Your task to perform on an android device: Open the stopwatch Image 0: 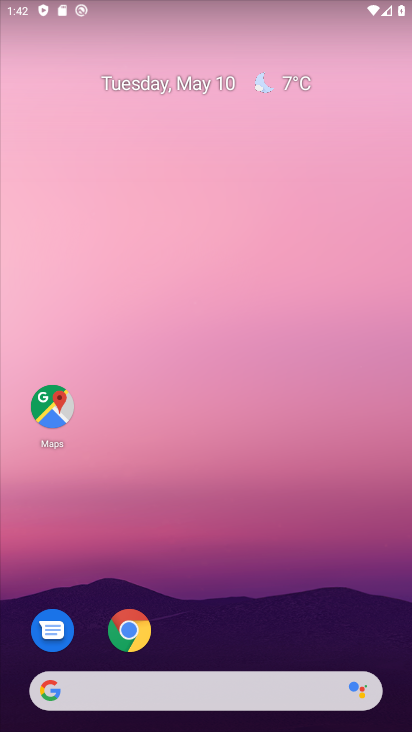
Step 0: drag from (224, 506) to (156, 2)
Your task to perform on an android device: Open the stopwatch Image 1: 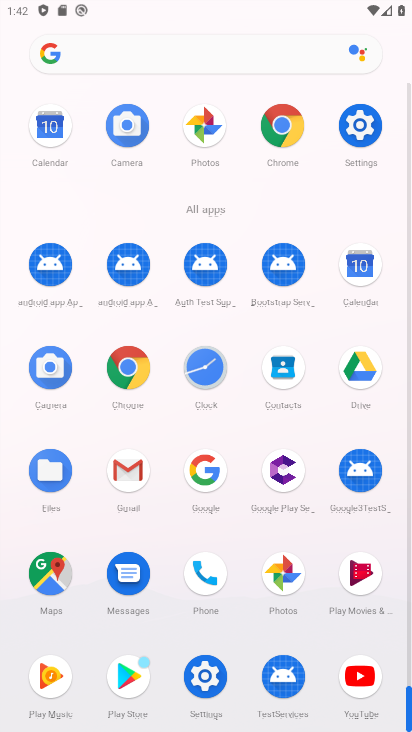
Step 1: drag from (7, 527) to (7, 241)
Your task to perform on an android device: Open the stopwatch Image 2: 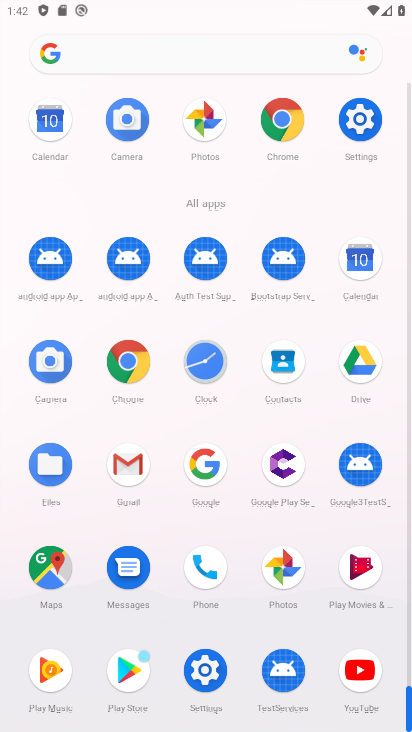
Step 2: click (209, 358)
Your task to perform on an android device: Open the stopwatch Image 3: 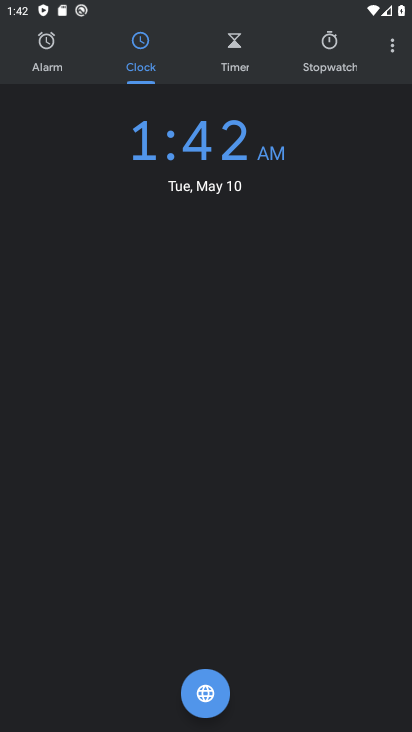
Step 3: click (313, 54)
Your task to perform on an android device: Open the stopwatch Image 4: 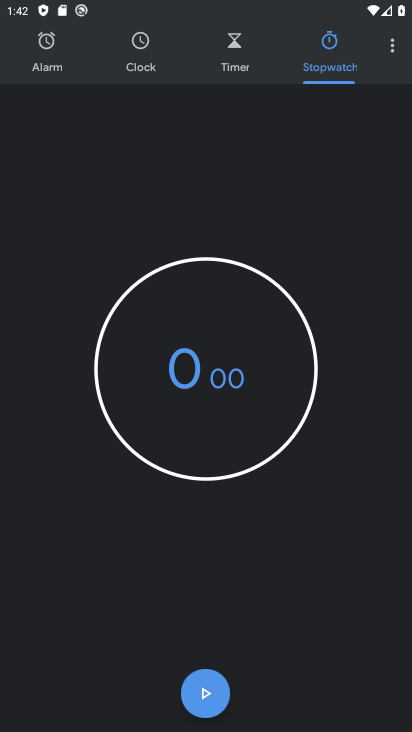
Step 4: task complete